Your task to perform on an android device: Open network settings Image 0: 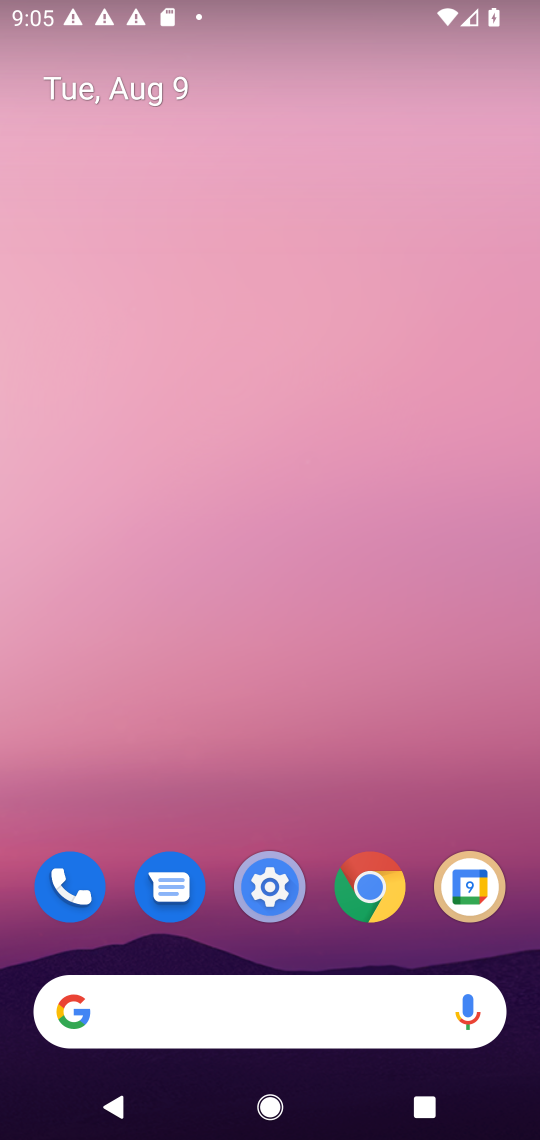
Step 0: click (288, 882)
Your task to perform on an android device: Open network settings Image 1: 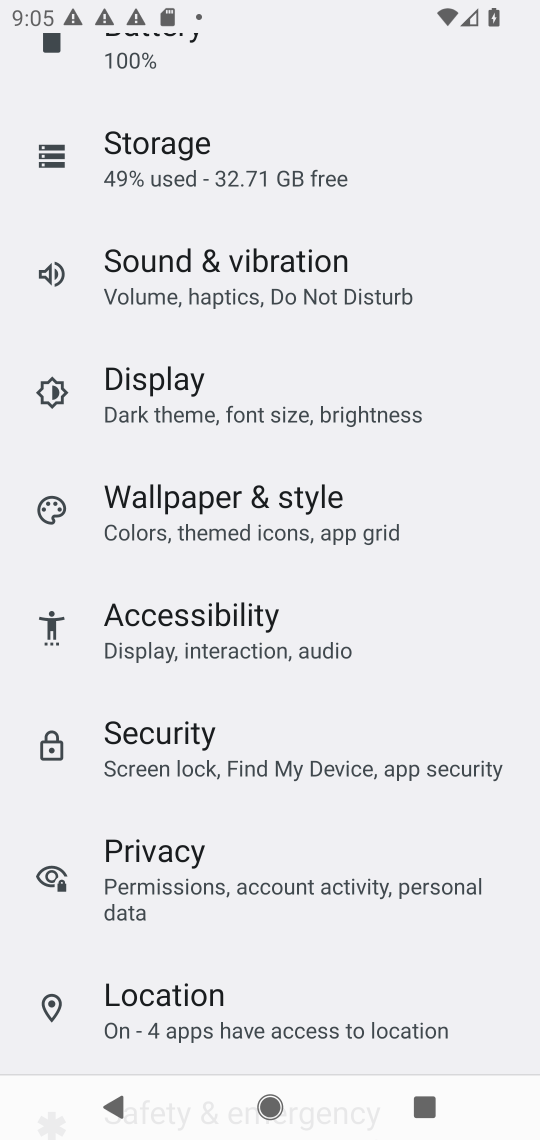
Step 1: drag from (291, 220) to (312, 764)
Your task to perform on an android device: Open network settings Image 2: 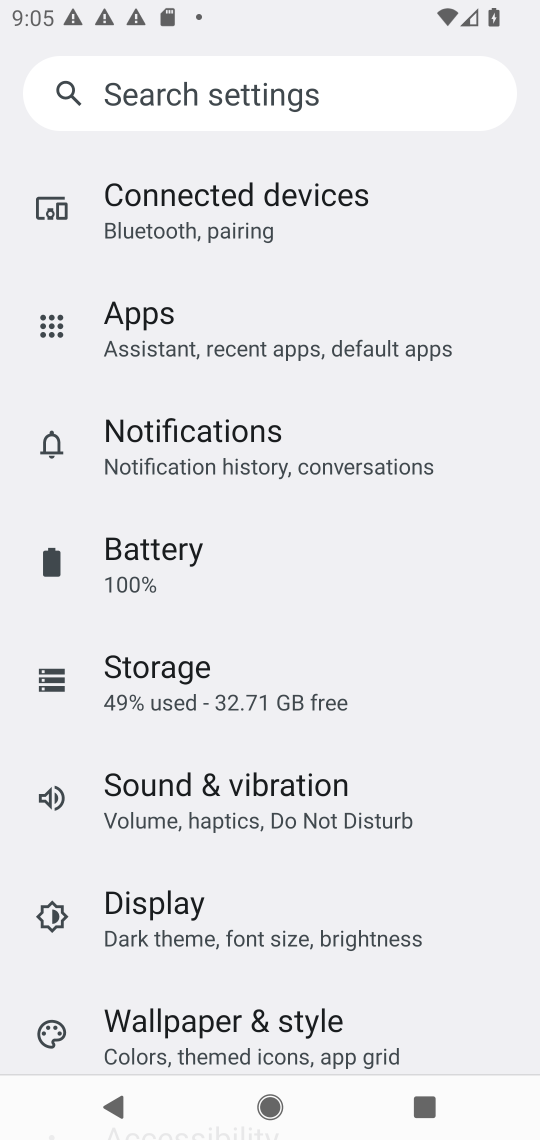
Step 2: drag from (336, 370) to (338, 747)
Your task to perform on an android device: Open network settings Image 3: 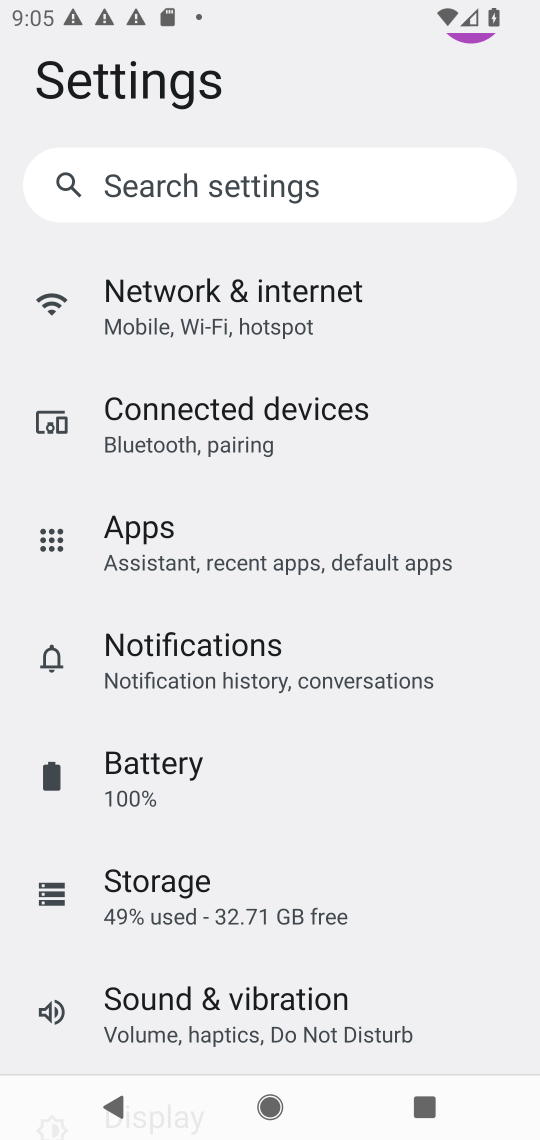
Step 3: click (241, 308)
Your task to perform on an android device: Open network settings Image 4: 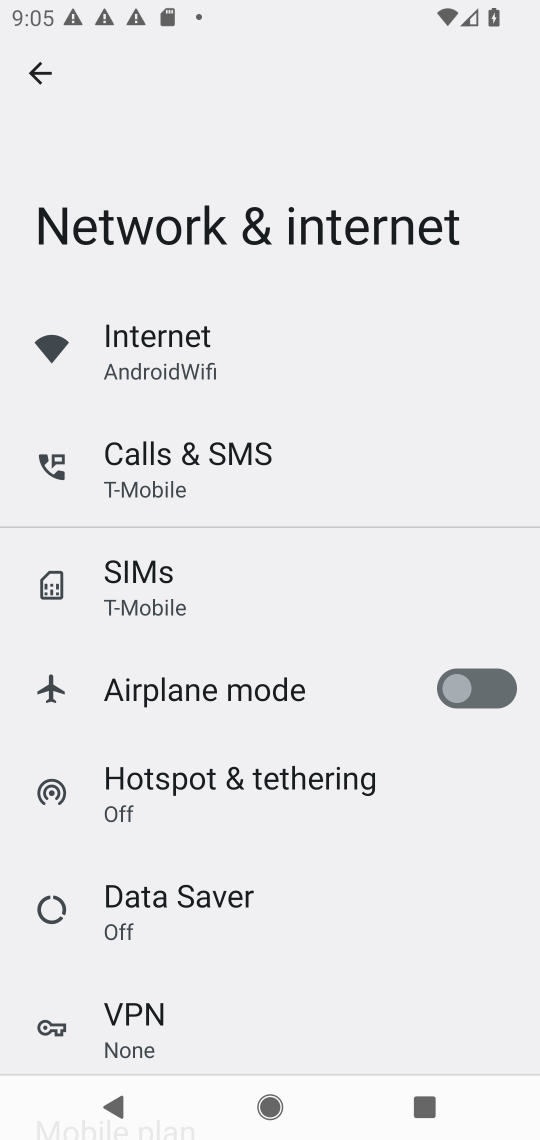
Step 4: click (245, 361)
Your task to perform on an android device: Open network settings Image 5: 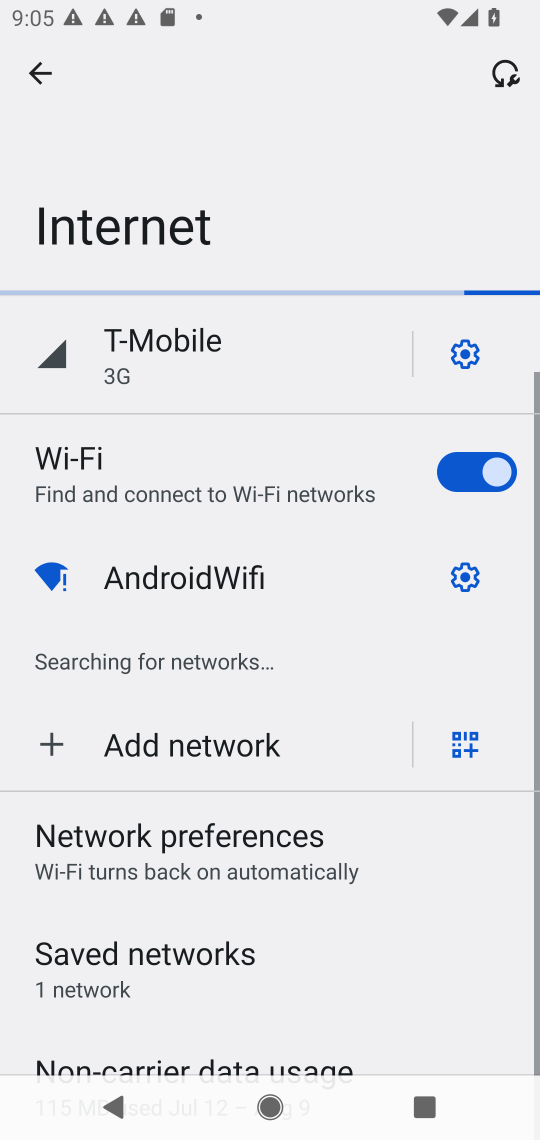
Step 5: task complete